Your task to perform on an android device: toggle improve location accuracy Image 0: 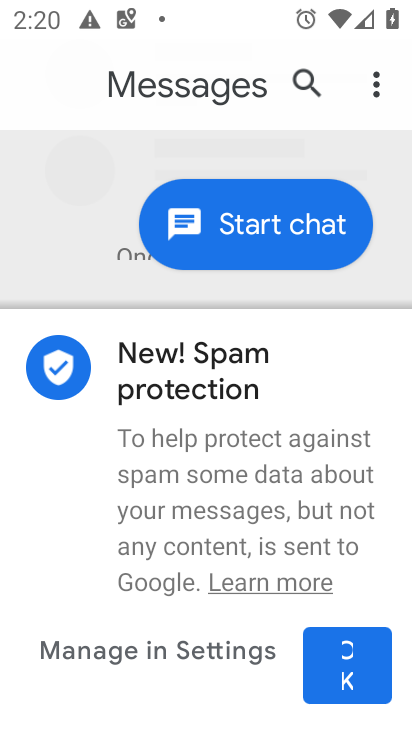
Step 0: press home button
Your task to perform on an android device: toggle improve location accuracy Image 1: 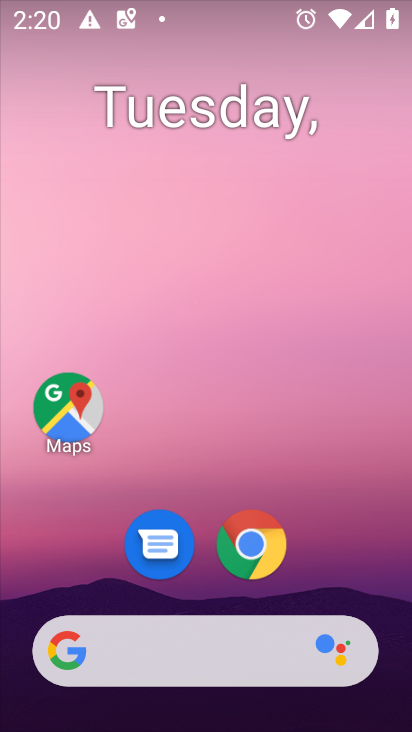
Step 1: drag from (342, 520) to (387, 92)
Your task to perform on an android device: toggle improve location accuracy Image 2: 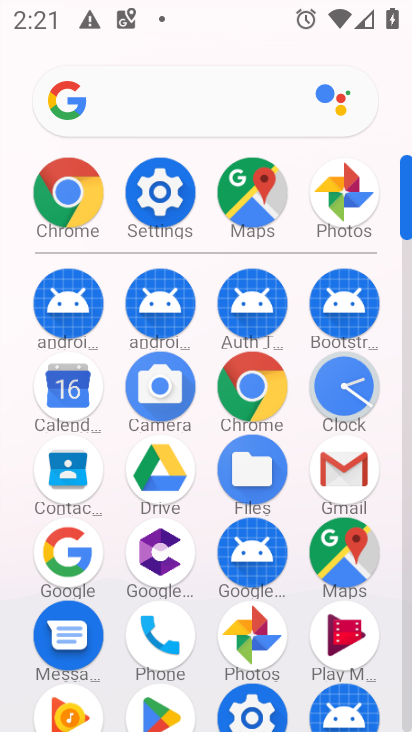
Step 2: click (254, 706)
Your task to perform on an android device: toggle improve location accuracy Image 3: 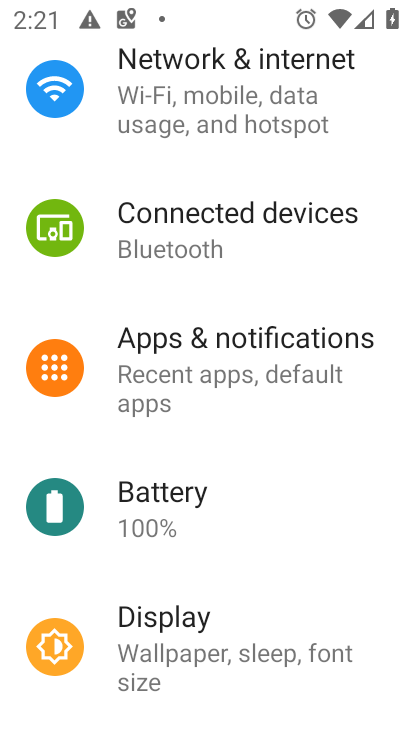
Step 3: drag from (275, 532) to (306, 147)
Your task to perform on an android device: toggle improve location accuracy Image 4: 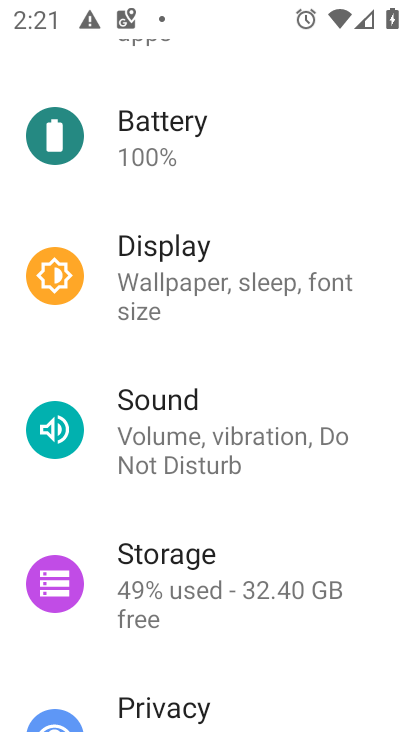
Step 4: drag from (291, 188) to (332, 138)
Your task to perform on an android device: toggle improve location accuracy Image 5: 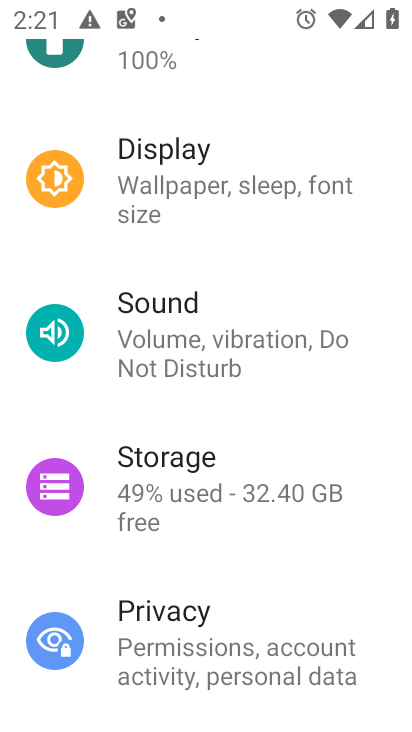
Step 5: drag from (310, 233) to (296, 668)
Your task to perform on an android device: toggle improve location accuracy Image 6: 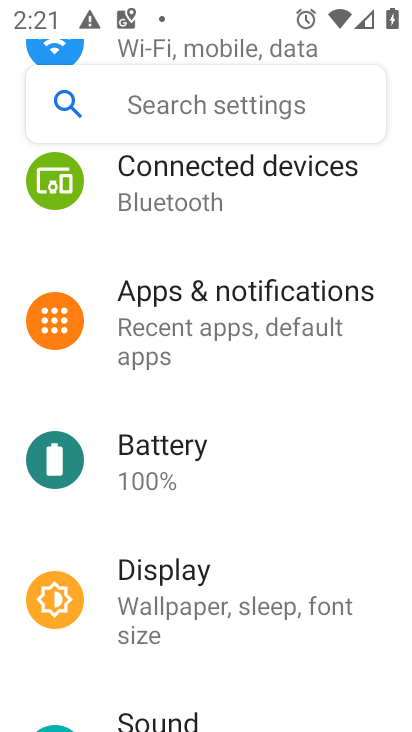
Step 6: drag from (315, 230) to (335, 104)
Your task to perform on an android device: toggle improve location accuracy Image 7: 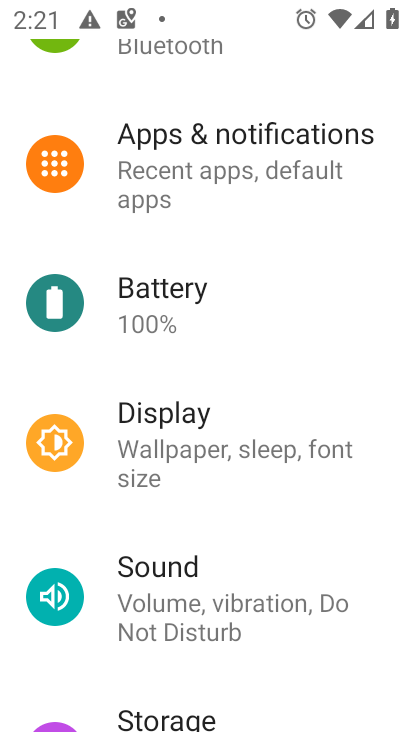
Step 7: drag from (260, 494) to (283, 164)
Your task to perform on an android device: toggle improve location accuracy Image 8: 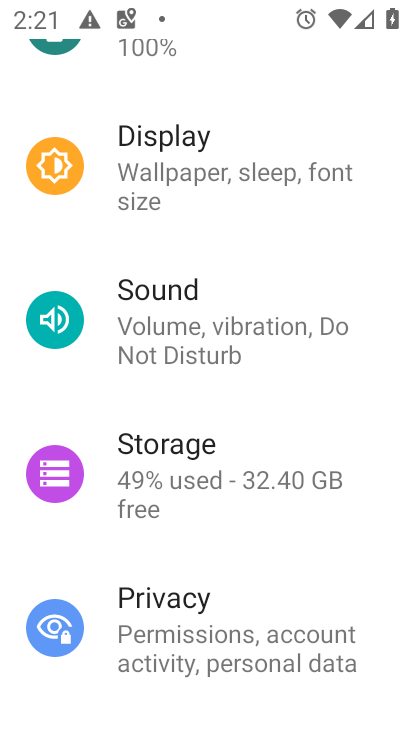
Step 8: drag from (233, 601) to (295, 267)
Your task to perform on an android device: toggle improve location accuracy Image 9: 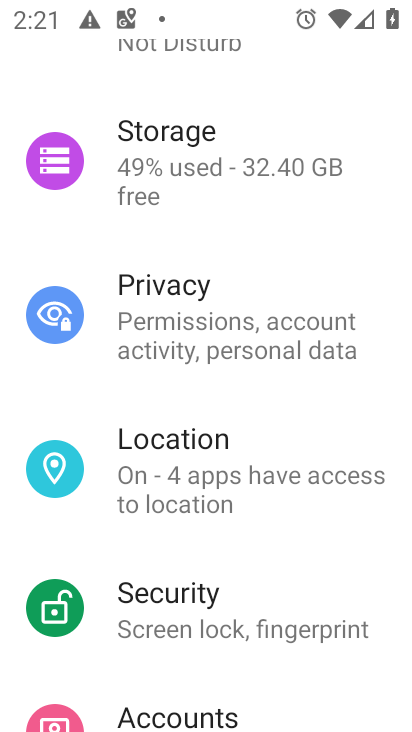
Step 9: click (212, 474)
Your task to perform on an android device: toggle improve location accuracy Image 10: 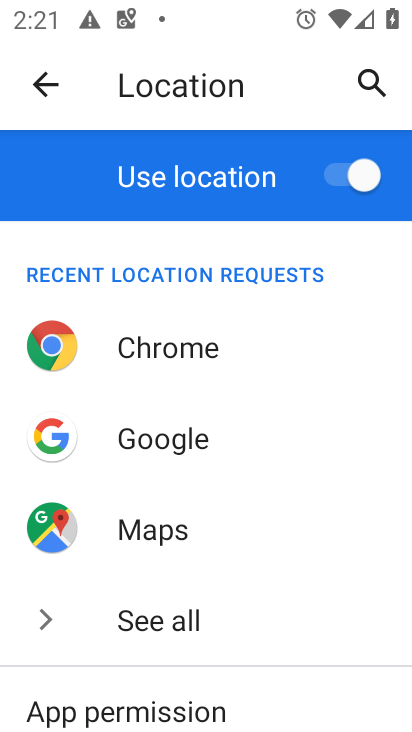
Step 10: drag from (285, 619) to (272, 188)
Your task to perform on an android device: toggle improve location accuracy Image 11: 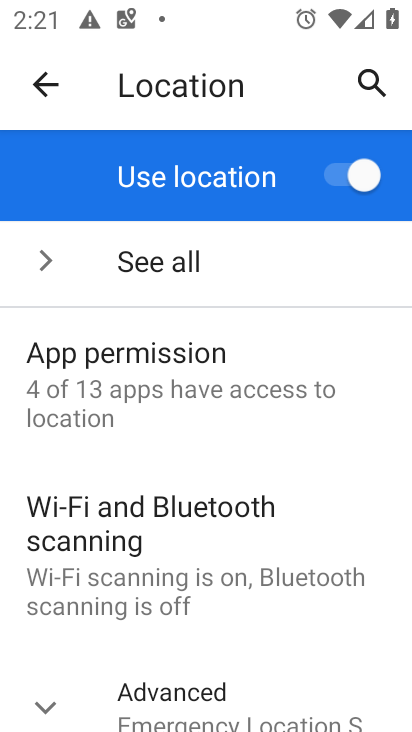
Step 11: drag from (280, 628) to (285, 365)
Your task to perform on an android device: toggle improve location accuracy Image 12: 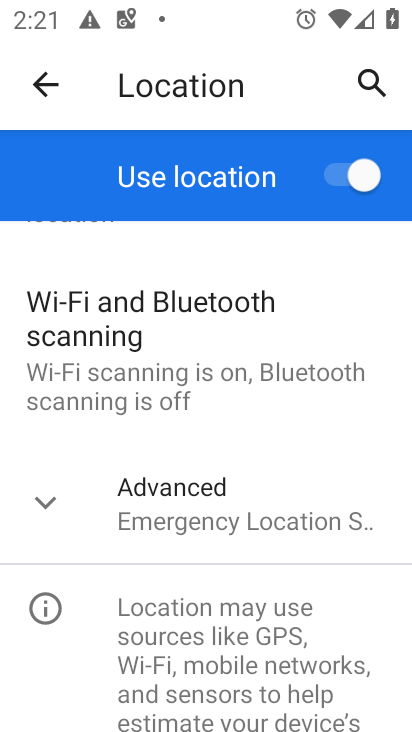
Step 12: click (234, 522)
Your task to perform on an android device: toggle improve location accuracy Image 13: 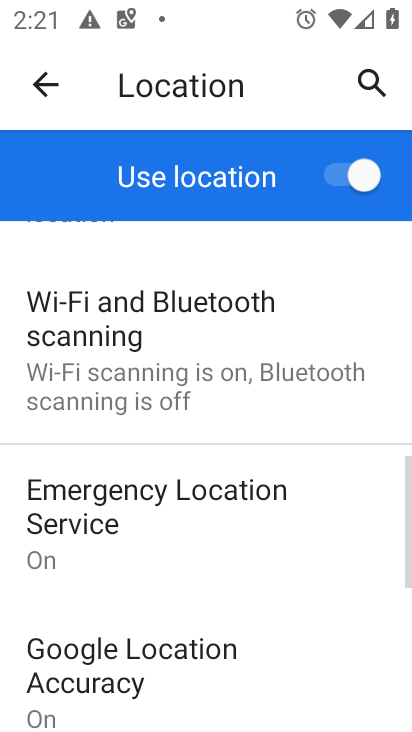
Step 13: drag from (292, 640) to (323, 324)
Your task to perform on an android device: toggle improve location accuracy Image 14: 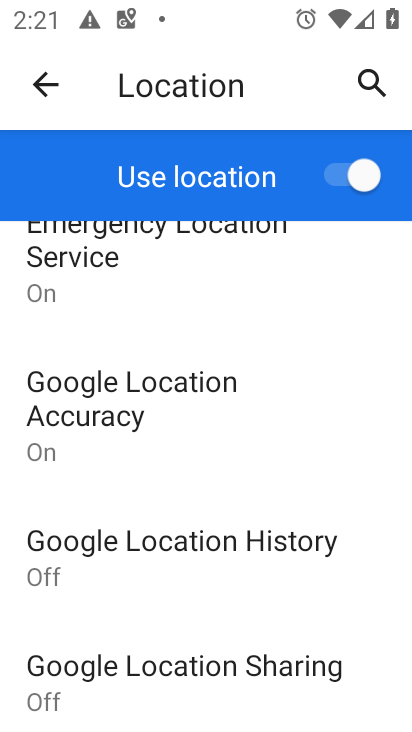
Step 14: click (163, 420)
Your task to perform on an android device: toggle improve location accuracy Image 15: 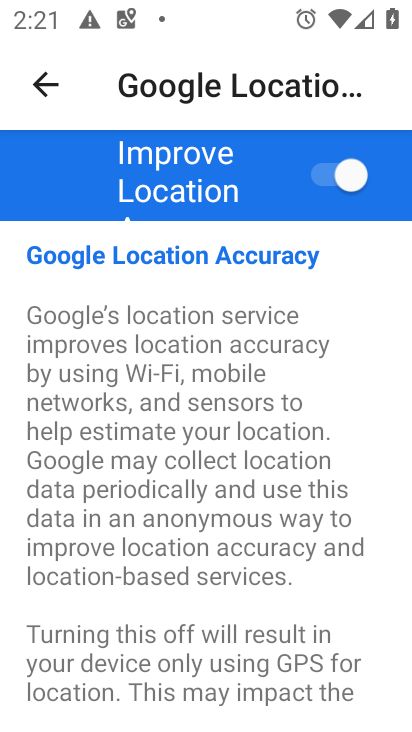
Step 15: click (321, 175)
Your task to perform on an android device: toggle improve location accuracy Image 16: 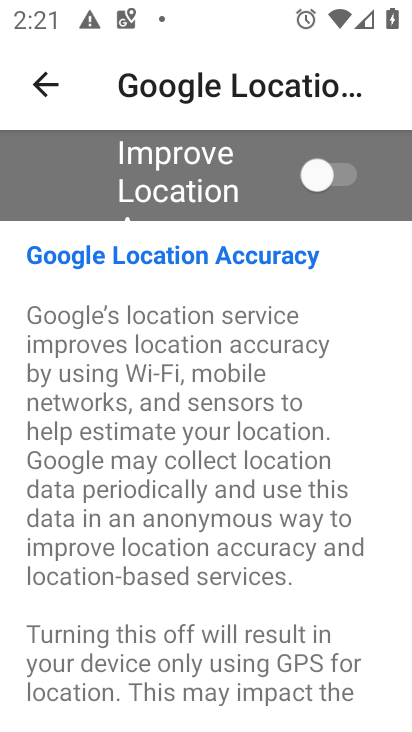
Step 16: task complete